Your task to perform on an android device: Look up the best rated bike on Walmart Image 0: 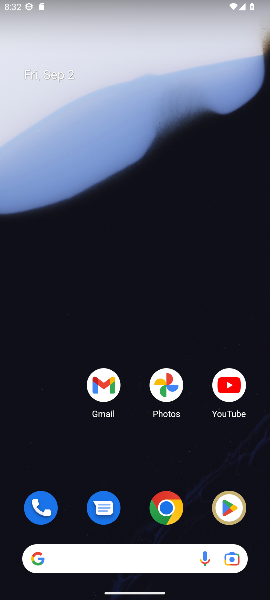
Step 0: drag from (163, 448) to (197, 20)
Your task to perform on an android device: Look up the best rated bike on Walmart Image 1: 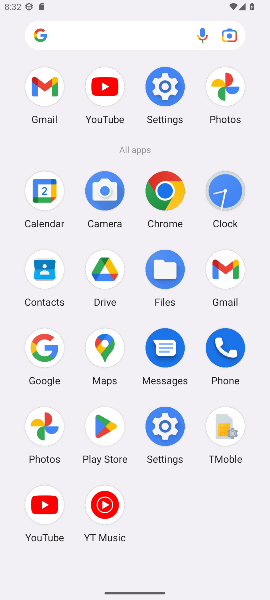
Step 1: click (166, 84)
Your task to perform on an android device: Look up the best rated bike on Walmart Image 2: 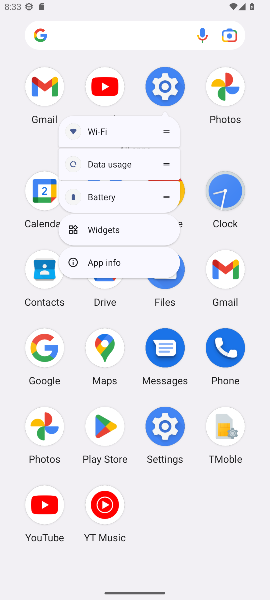
Step 2: click (163, 89)
Your task to perform on an android device: Look up the best rated bike on Walmart Image 3: 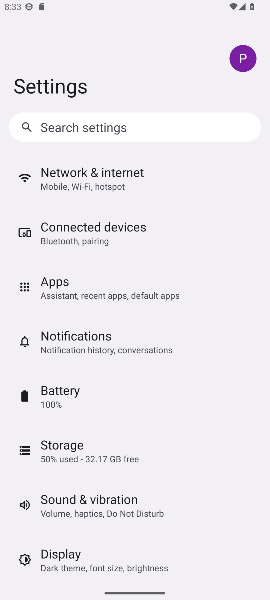
Step 3: click (38, 339)
Your task to perform on an android device: Look up the best rated bike on Walmart Image 4: 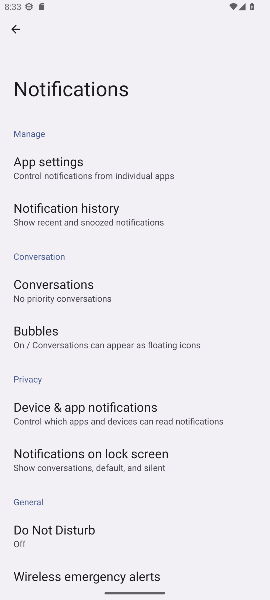
Step 4: click (58, 214)
Your task to perform on an android device: Look up the best rated bike on Walmart Image 5: 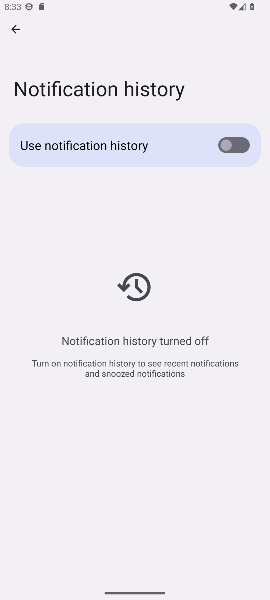
Step 5: click (174, 133)
Your task to perform on an android device: Look up the best rated bike on Walmart Image 6: 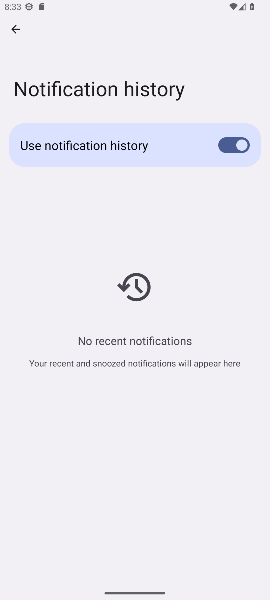
Step 6: task complete